Your task to perform on an android device: turn on improve location accuracy Image 0: 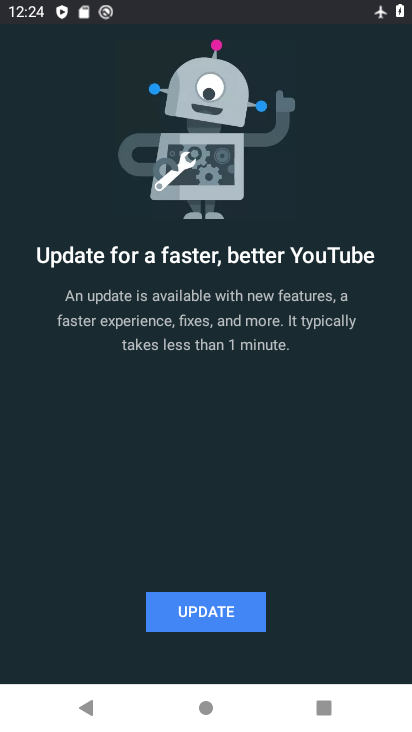
Step 0: press home button
Your task to perform on an android device: turn on improve location accuracy Image 1: 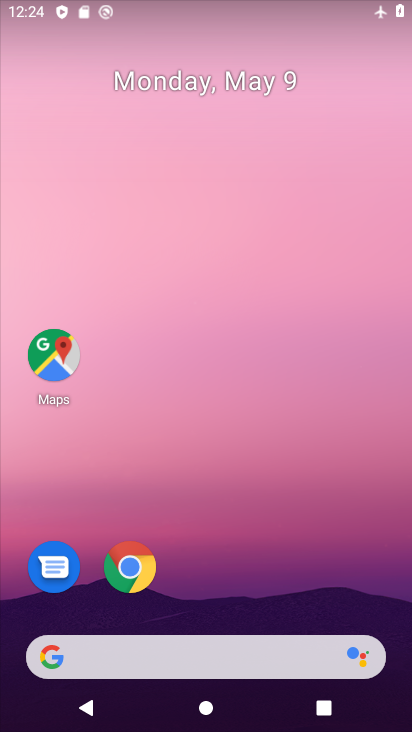
Step 1: drag from (248, 613) to (215, 4)
Your task to perform on an android device: turn on improve location accuracy Image 2: 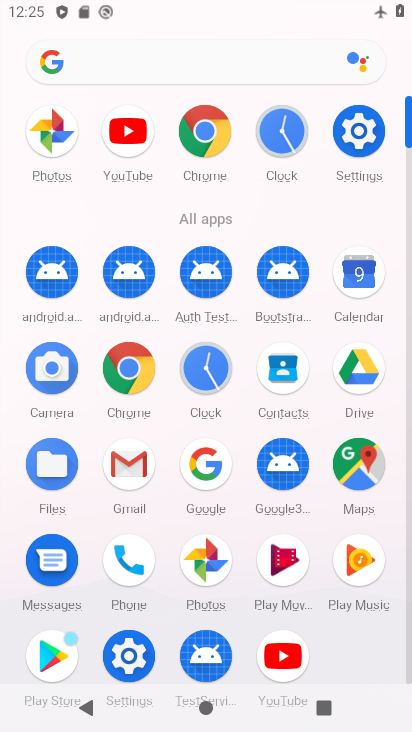
Step 2: click (124, 638)
Your task to perform on an android device: turn on improve location accuracy Image 3: 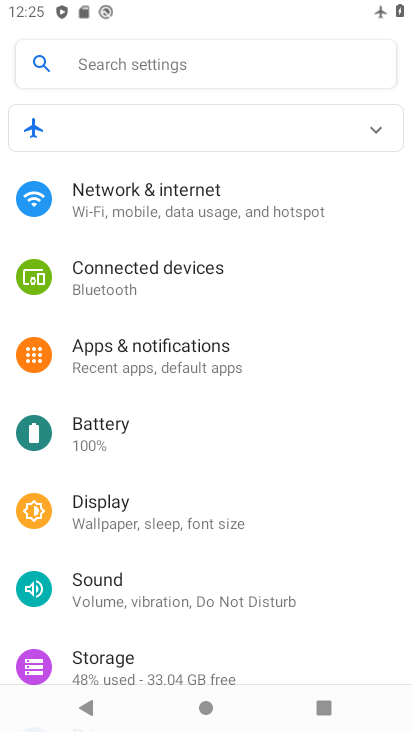
Step 3: drag from (199, 644) to (253, 195)
Your task to perform on an android device: turn on improve location accuracy Image 4: 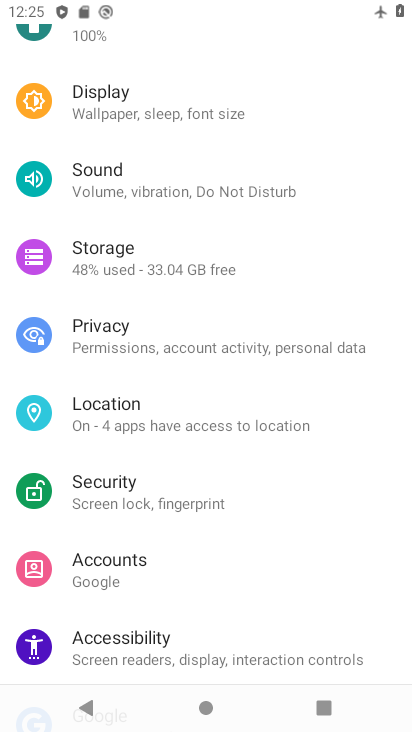
Step 4: click (147, 428)
Your task to perform on an android device: turn on improve location accuracy Image 5: 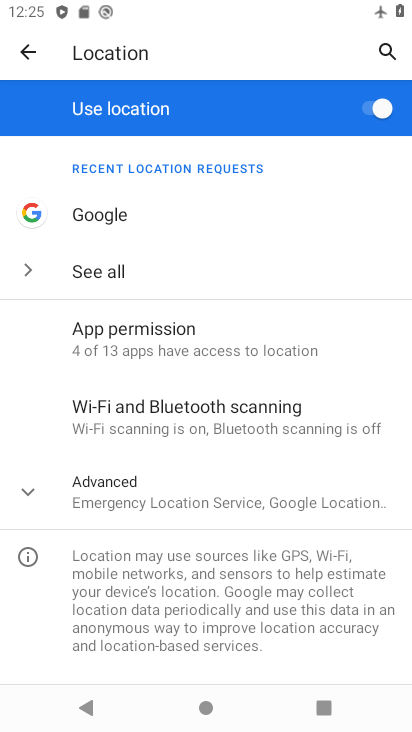
Step 5: click (163, 501)
Your task to perform on an android device: turn on improve location accuracy Image 6: 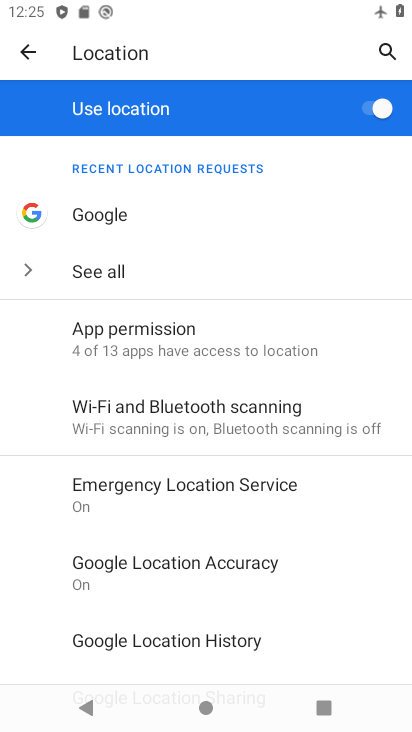
Step 6: click (194, 574)
Your task to perform on an android device: turn on improve location accuracy Image 7: 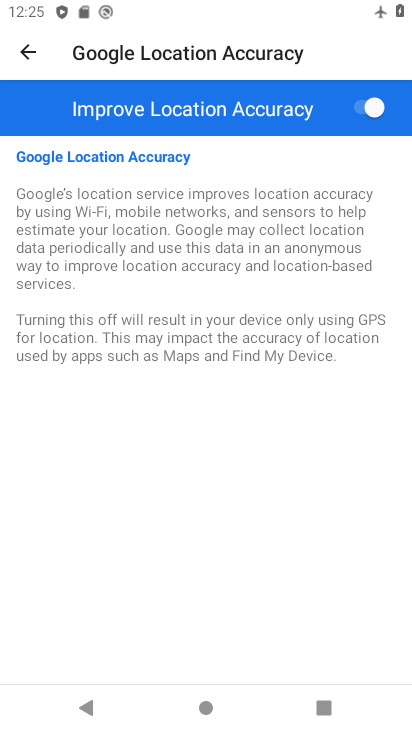
Step 7: task complete